Your task to perform on an android device: Search for pizza restaurants on Maps Image 0: 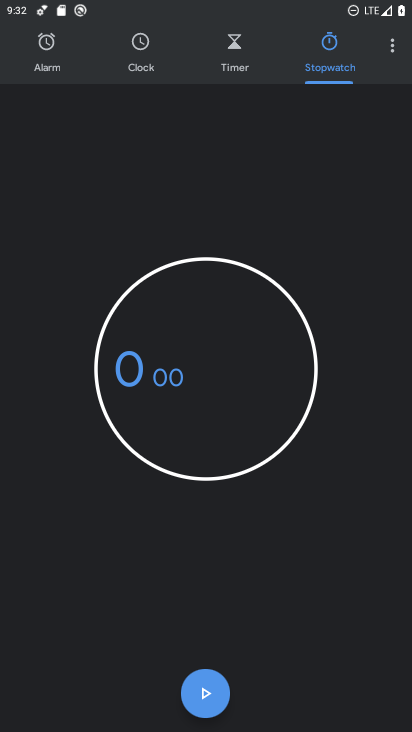
Step 0: press home button
Your task to perform on an android device: Search for pizza restaurants on Maps Image 1: 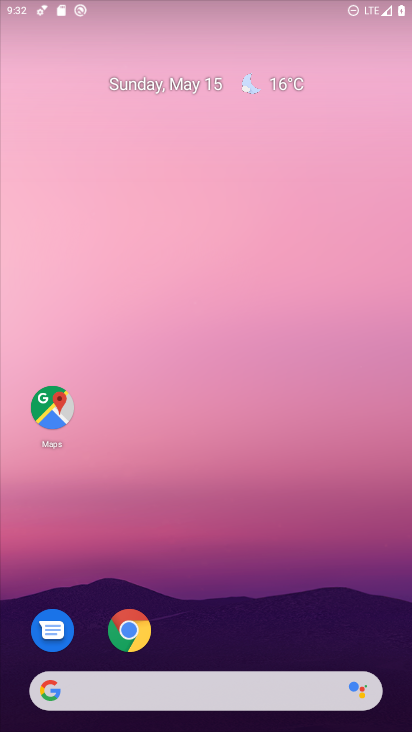
Step 1: drag from (228, 655) to (285, 256)
Your task to perform on an android device: Search for pizza restaurants on Maps Image 2: 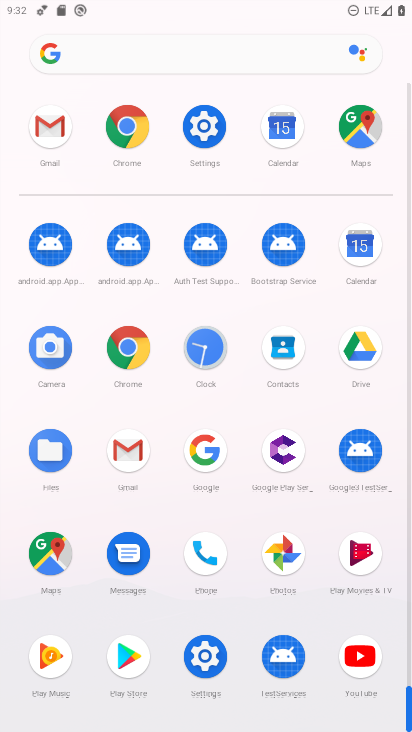
Step 2: click (47, 533)
Your task to perform on an android device: Search for pizza restaurants on Maps Image 3: 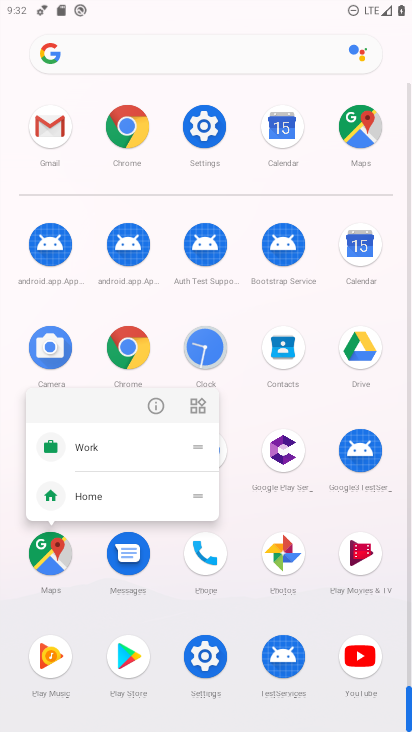
Step 3: click (163, 399)
Your task to perform on an android device: Search for pizza restaurants on Maps Image 4: 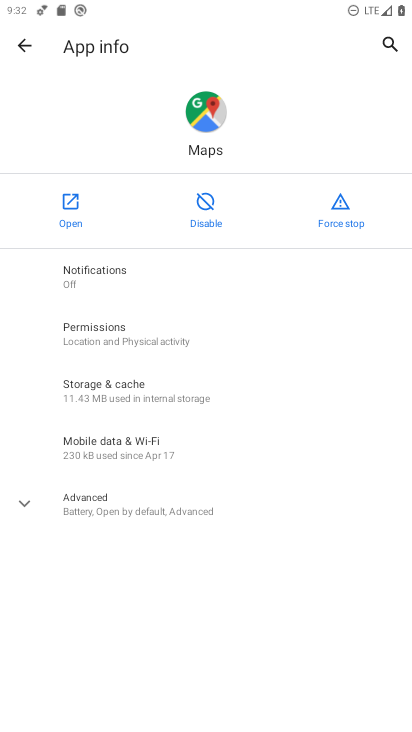
Step 4: click (76, 223)
Your task to perform on an android device: Search for pizza restaurants on Maps Image 5: 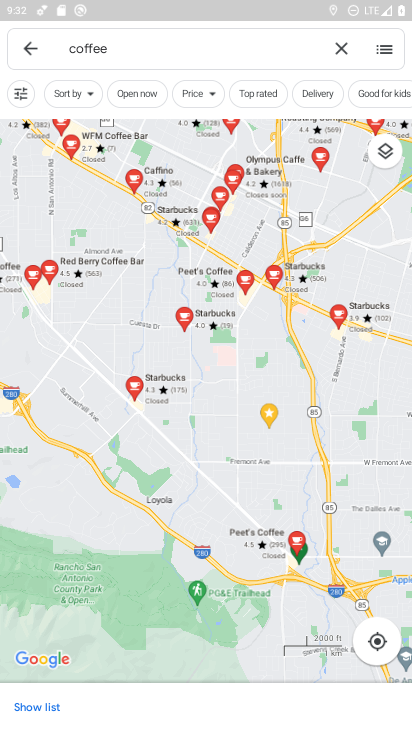
Step 5: click (333, 46)
Your task to perform on an android device: Search for pizza restaurants on Maps Image 6: 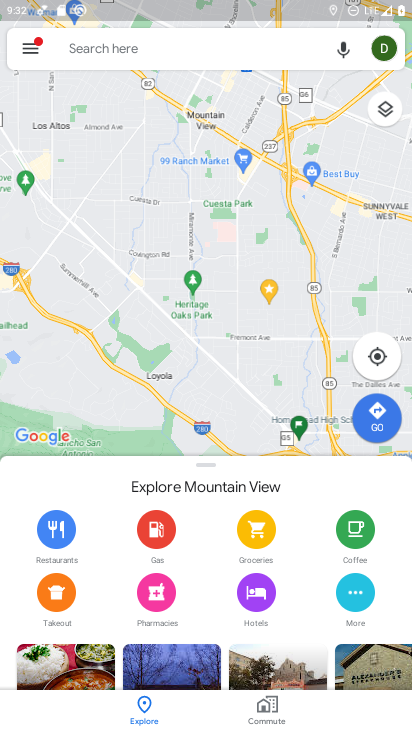
Step 6: click (160, 36)
Your task to perform on an android device: Search for pizza restaurants on Maps Image 7: 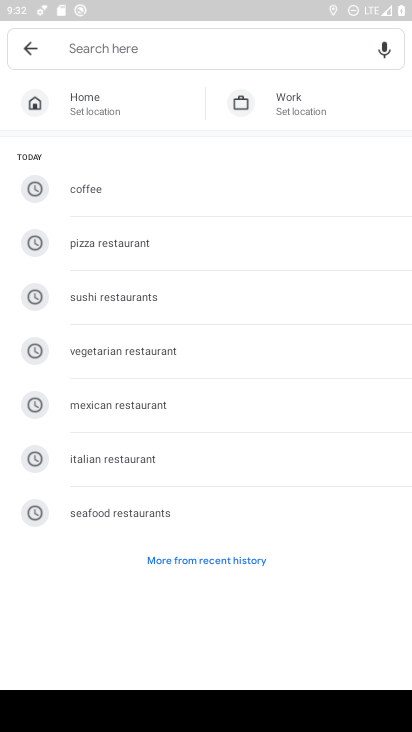
Step 7: click (161, 252)
Your task to perform on an android device: Search for pizza restaurants on Maps Image 8: 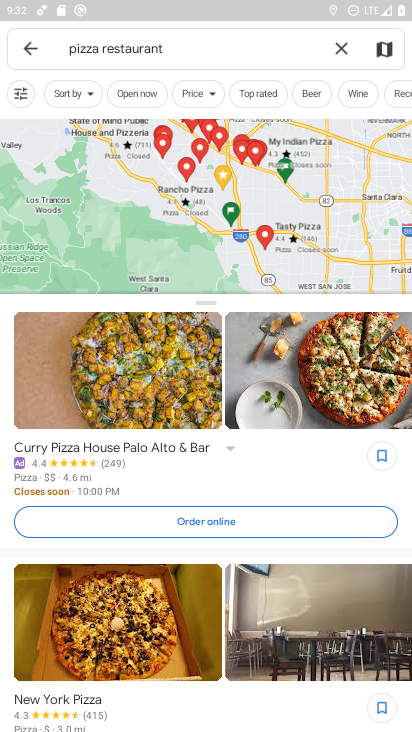
Step 8: task complete